Your task to perform on an android device: Open sound settings Image 0: 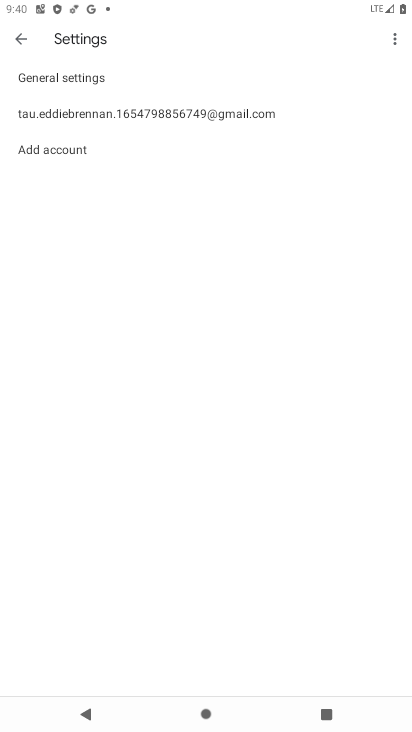
Step 0: press home button
Your task to perform on an android device: Open sound settings Image 1: 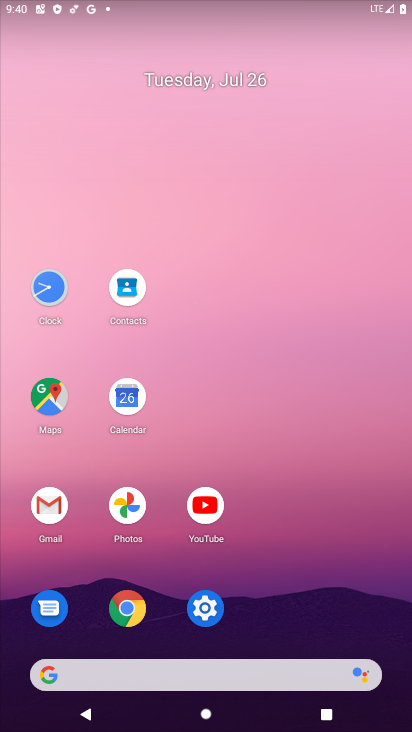
Step 1: click (200, 596)
Your task to perform on an android device: Open sound settings Image 2: 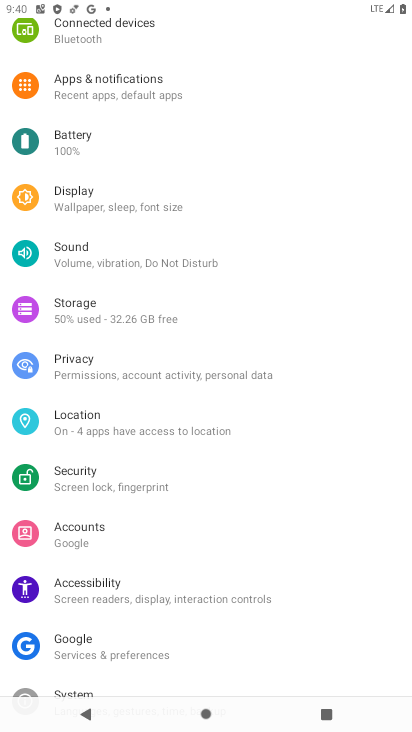
Step 2: click (63, 240)
Your task to perform on an android device: Open sound settings Image 3: 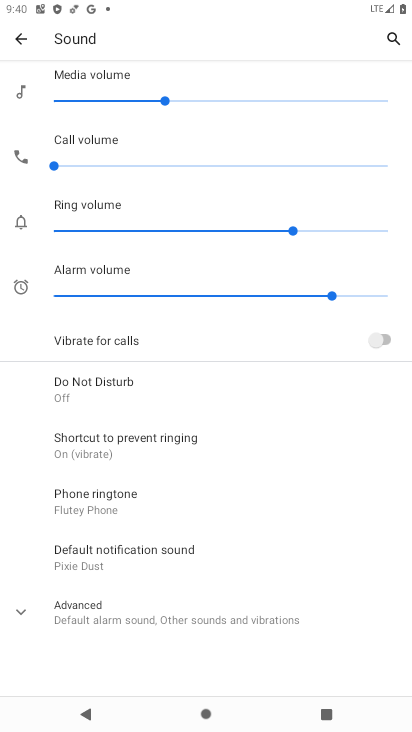
Step 3: task complete